Your task to perform on an android device: Open privacy settings Image 0: 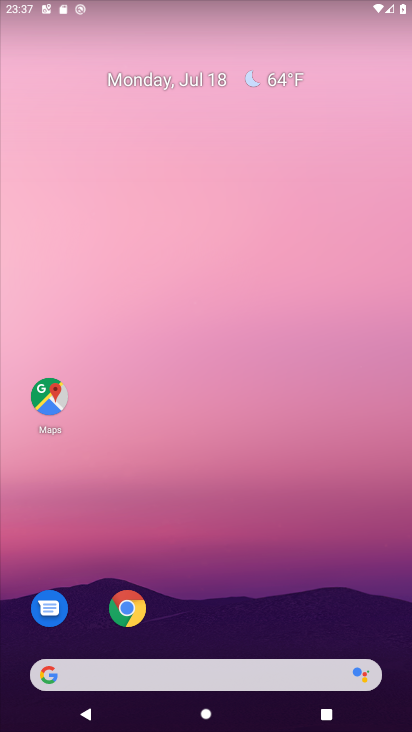
Step 0: drag from (208, 607) to (331, 97)
Your task to perform on an android device: Open privacy settings Image 1: 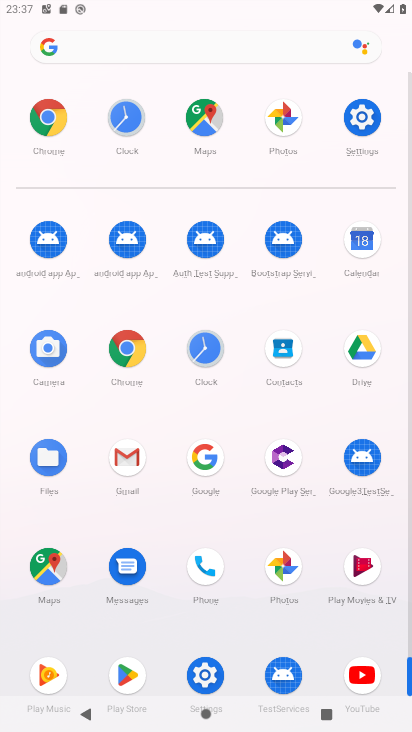
Step 1: click (207, 678)
Your task to perform on an android device: Open privacy settings Image 2: 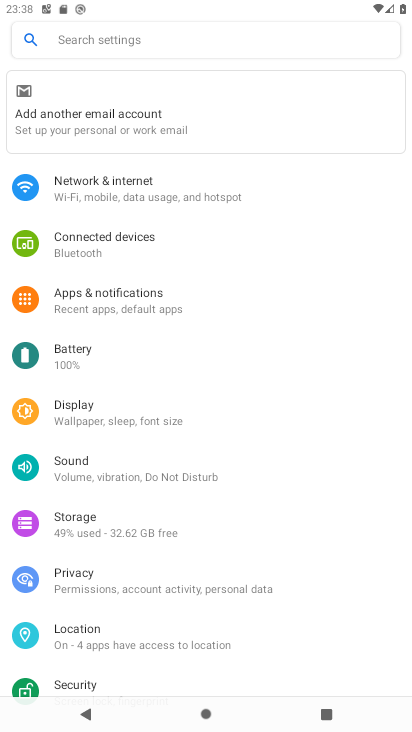
Step 2: click (109, 589)
Your task to perform on an android device: Open privacy settings Image 3: 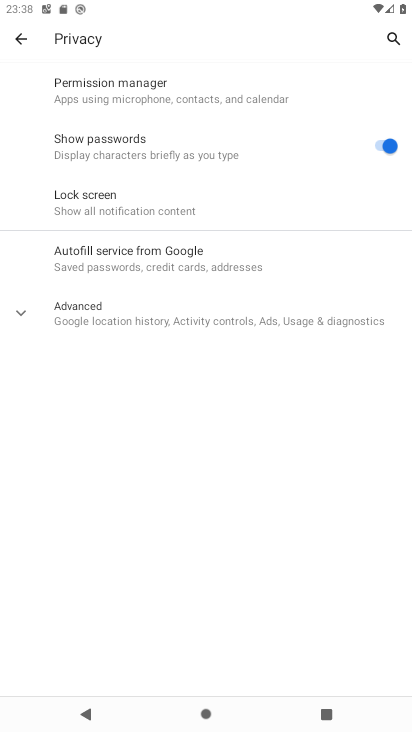
Step 3: task complete